Your task to perform on an android device: toggle airplane mode Image 0: 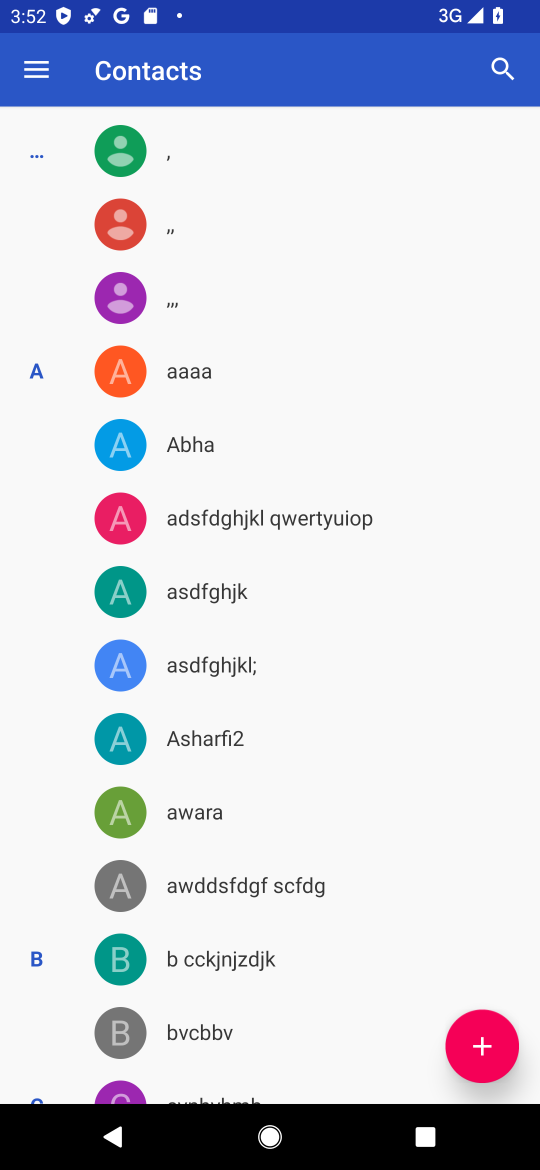
Step 0: press back button
Your task to perform on an android device: toggle airplane mode Image 1: 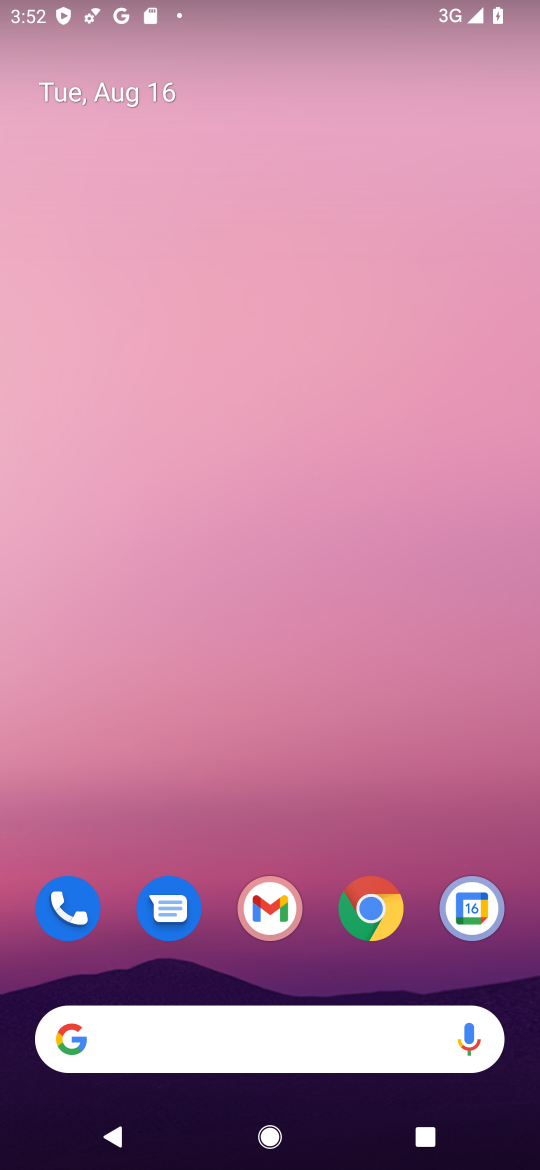
Step 1: drag from (496, 5) to (337, 872)
Your task to perform on an android device: toggle airplane mode Image 2: 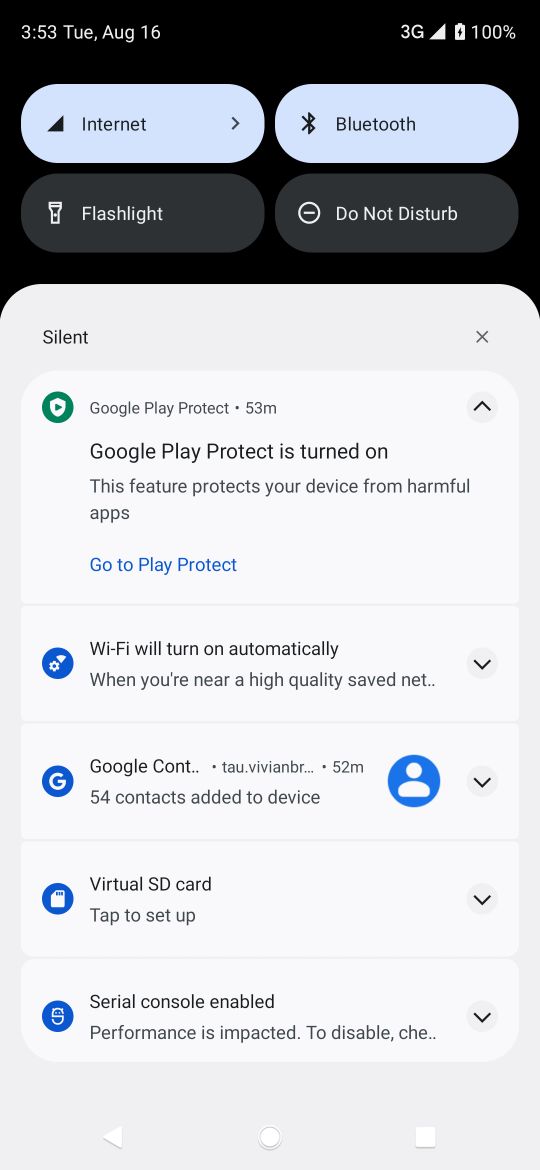
Step 2: drag from (274, 266) to (283, 1167)
Your task to perform on an android device: toggle airplane mode Image 3: 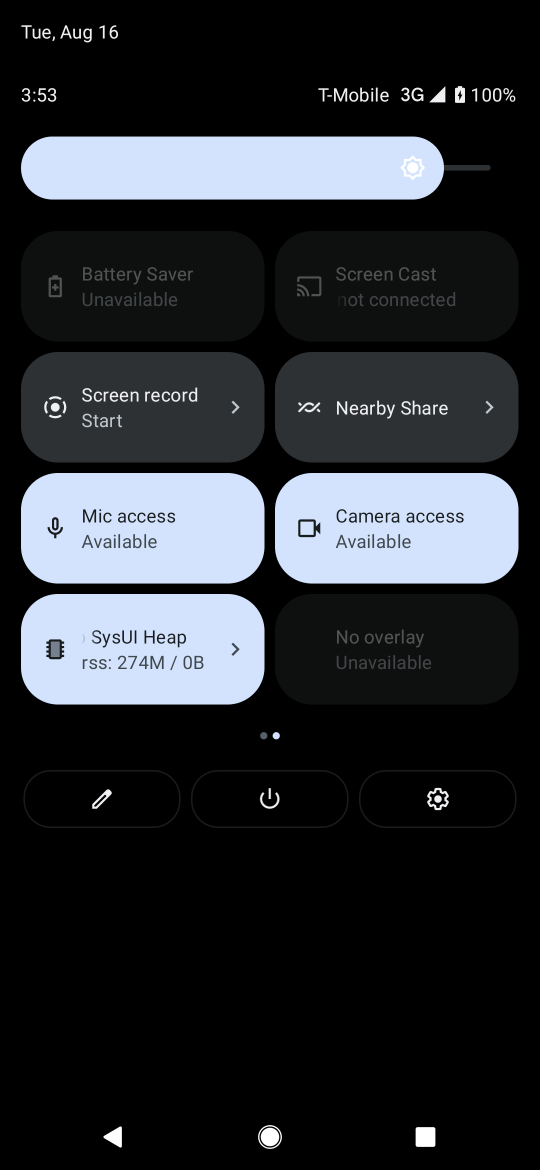
Step 3: drag from (210, 460) to (520, 460)
Your task to perform on an android device: toggle airplane mode Image 4: 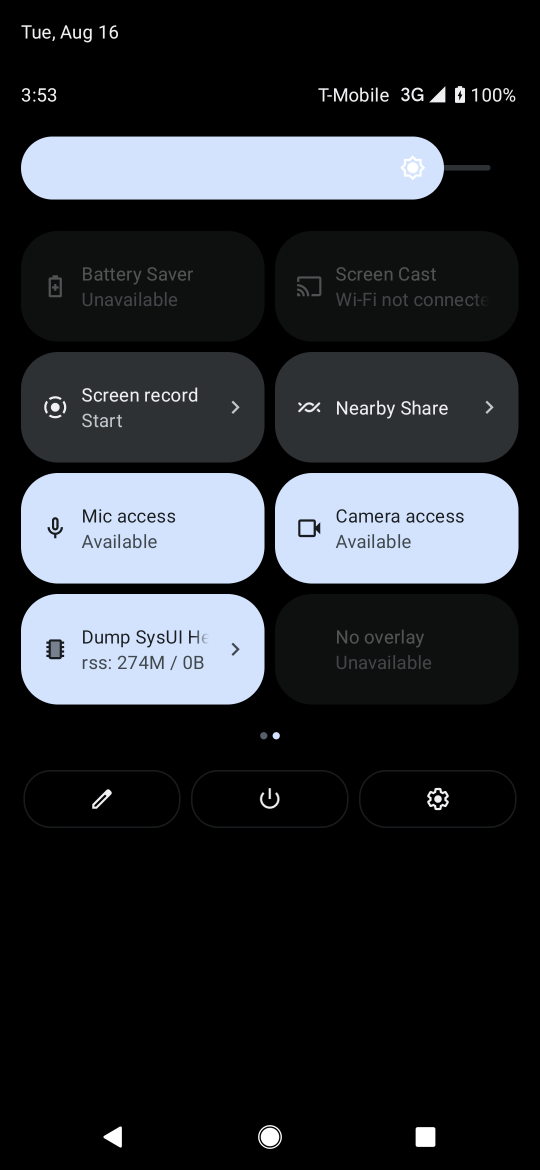
Step 4: drag from (78, 512) to (538, 521)
Your task to perform on an android device: toggle airplane mode Image 5: 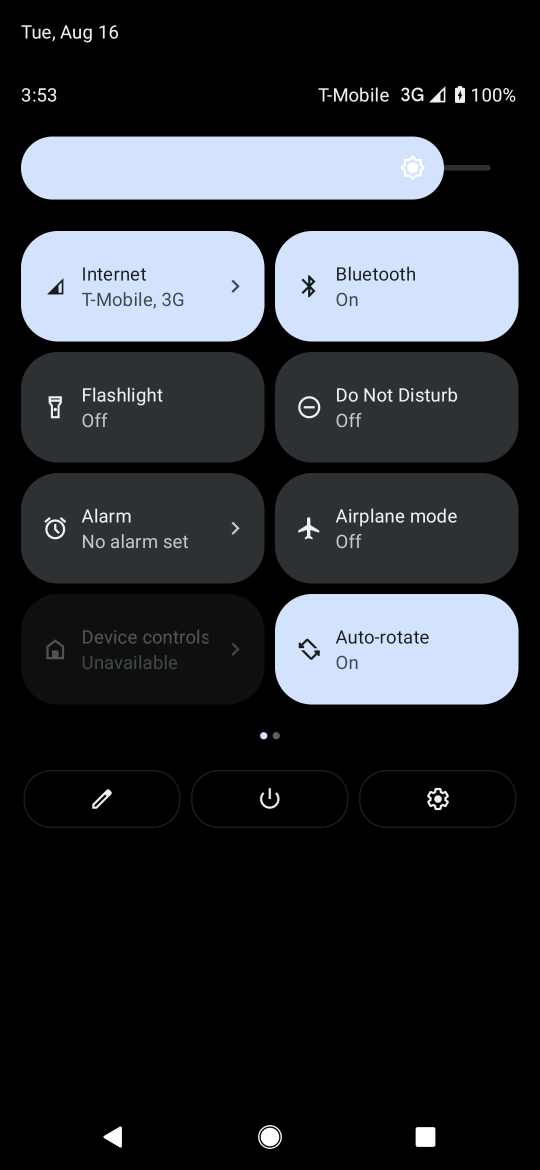
Step 5: click (360, 538)
Your task to perform on an android device: toggle airplane mode Image 6: 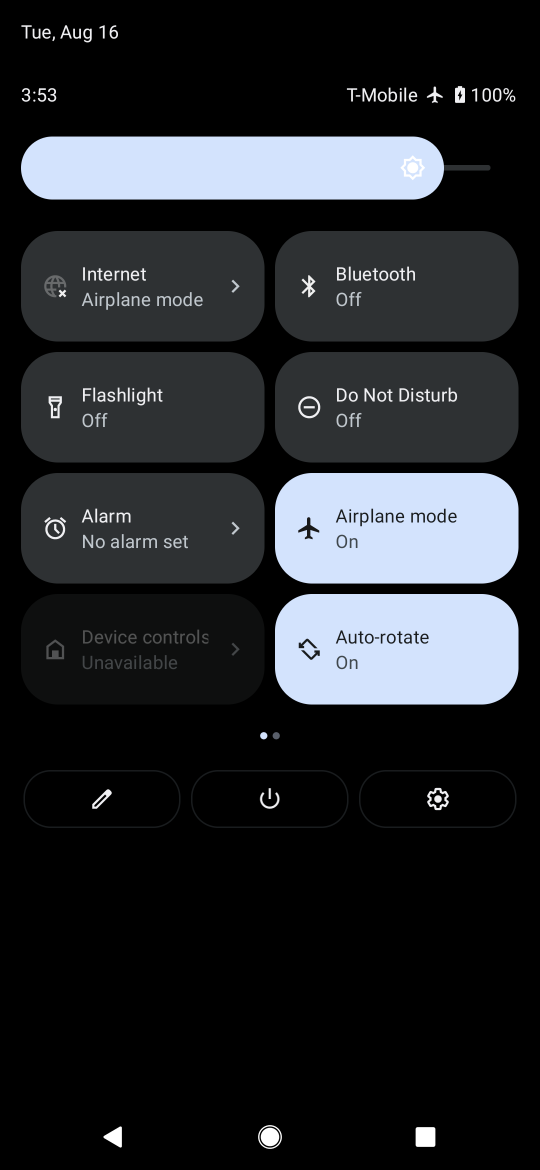
Step 6: task complete